Your task to perform on an android device: turn off translation in the chrome app Image 0: 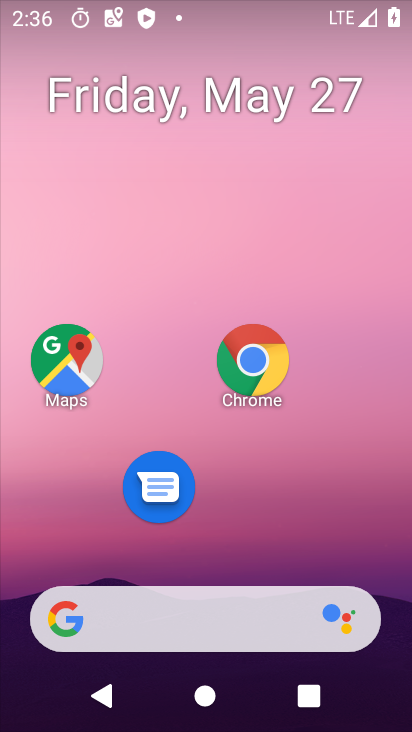
Step 0: click (257, 359)
Your task to perform on an android device: turn off translation in the chrome app Image 1: 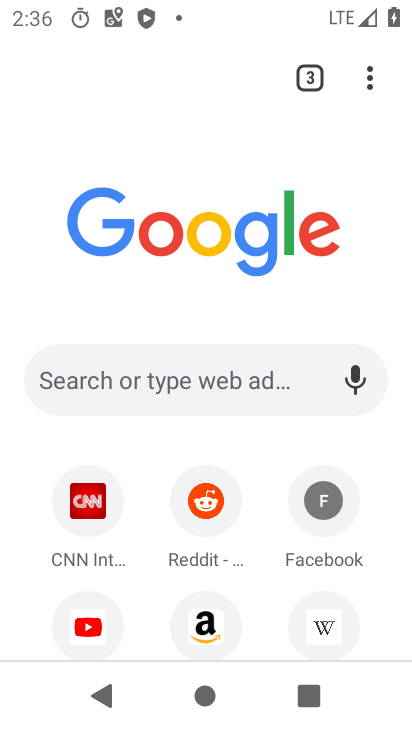
Step 1: click (364, 80)
Your task to perform on an android device: turn off translation in the chrome app Image 2: 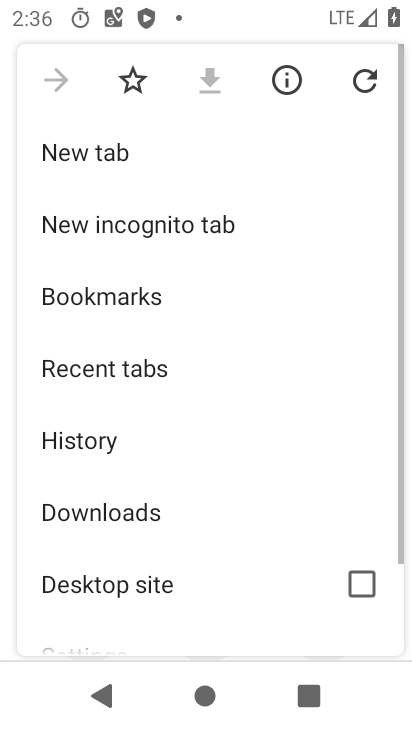
Step 2: drag from (234, 533) to (252, 71)
Your task to perform on an android device: turn off translation in the chrome app Image 3: 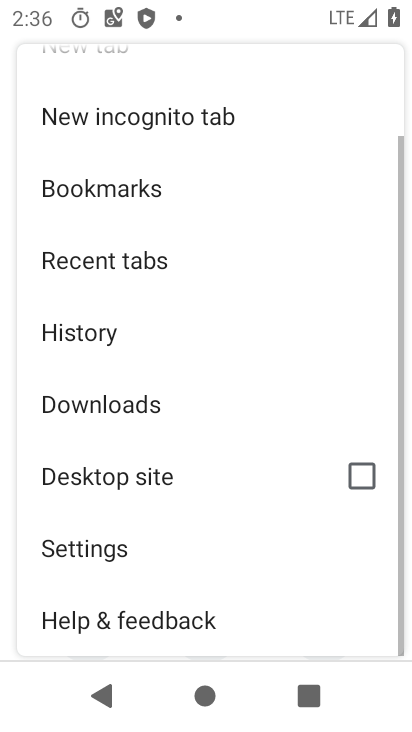
Step 3: click (124, 554)
Your task to perform on an android device: turn off translation in the chrome app Image 4: 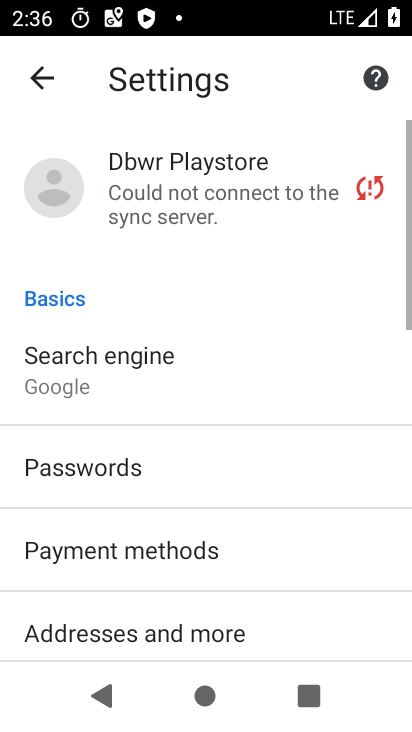
Step 4: drag from (247, 558) to (267, 129)
Your task to perform on an android device: turn off translation in the chrome app Image 5: 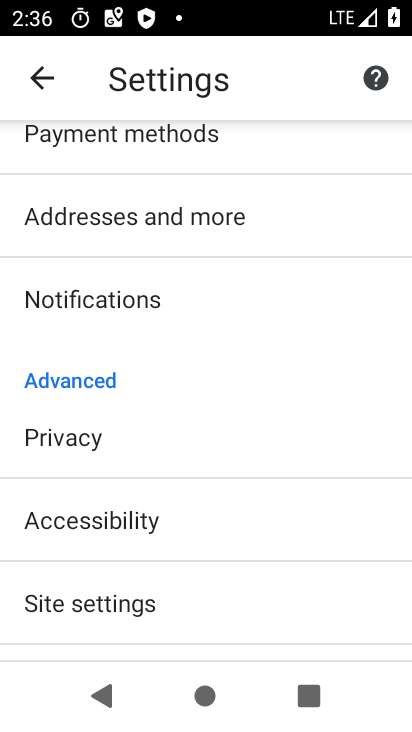
Step 5: drag from (173, 562) to (206, 350)
Your task to perform on an android device: turn off translation in the chrome app Image 6: 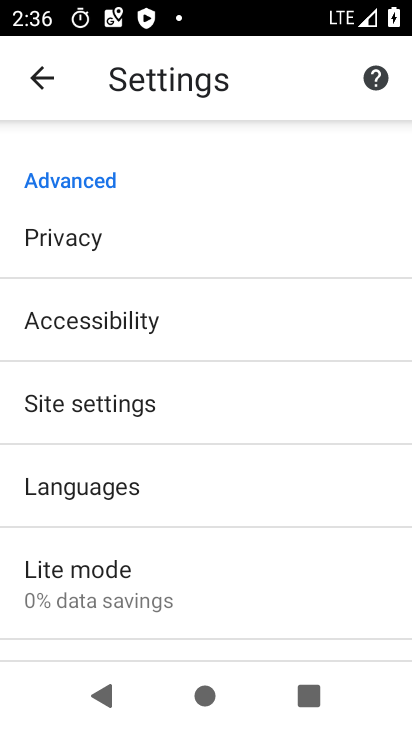
Step 6: click (106, 477)
Your task to perform on an android device: turn off translation in the chrome app Image 7: 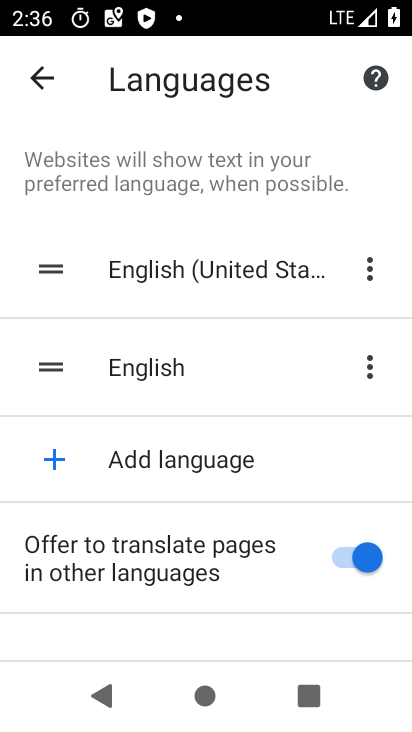
Step 7: click (371, 557)
Your task to perform on an android device: turn off translation in the chrome app Image 8: 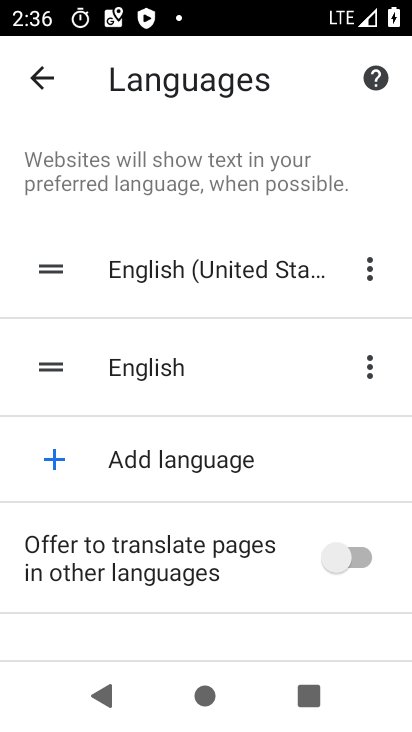
Step 8: task complete